Your task to perform on an android device: Go to Maps Image 0: 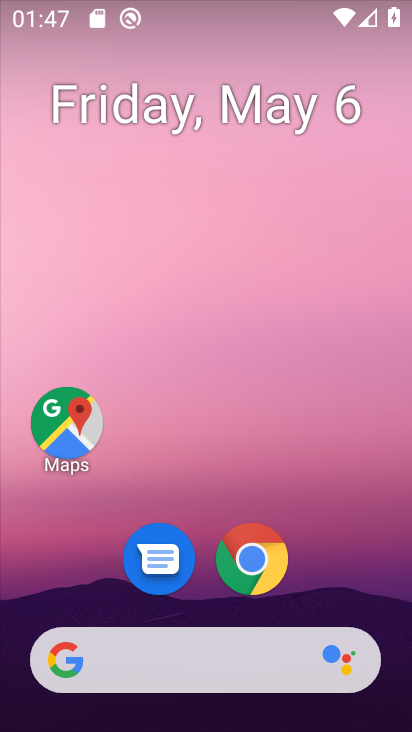
Step 0: drag from (262, 653) to (312, 10)
Your task to perform on an android device: Go to Maps Image 1: 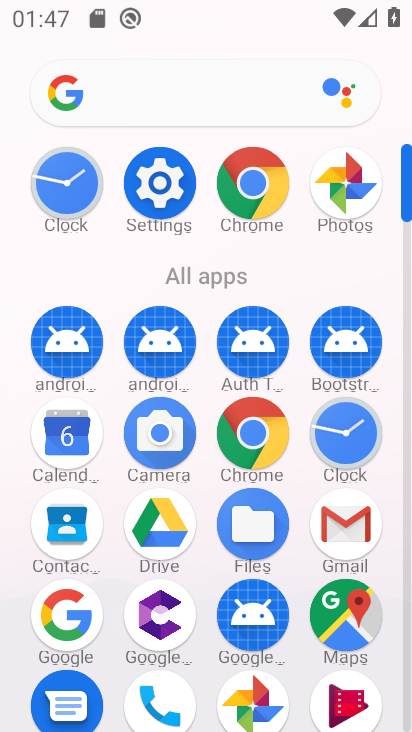
Step 1: click (365, 623)
Your task to perform on an android device: Go to Maps Image 2: 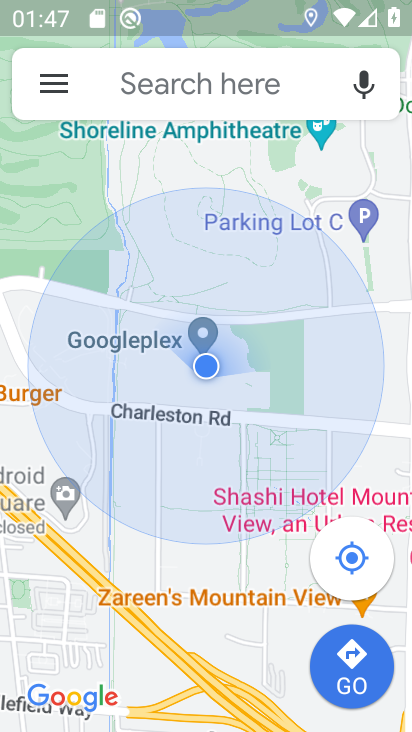
Step 2: task complete